Your task to perform on an android device: Go to Amazon Image 0: 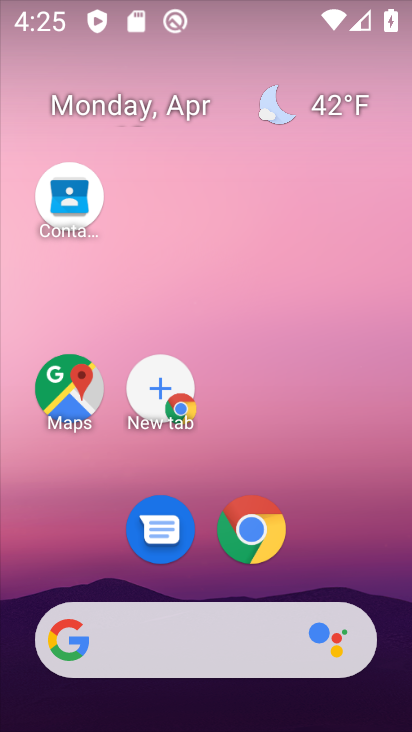
Step 0: click (261, 541)
Your task to perform on an android device: Go to Amazon Image 1: 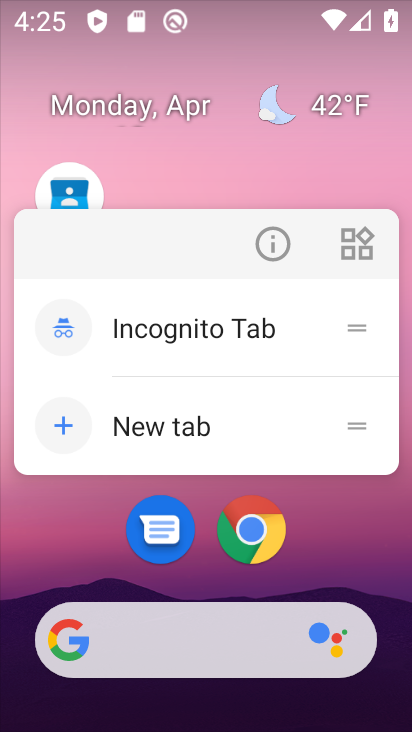
Step 1: click (251, 537)
Your task to perform on an android device: Go to Amazon Image 2: 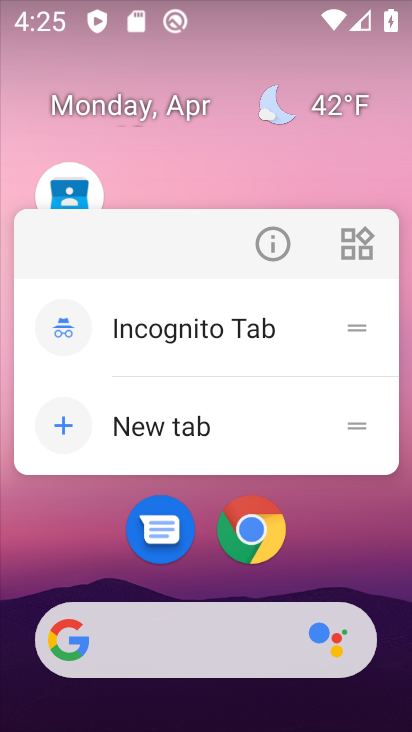
Step 2: click (257, 523)
Your task to perform on an android device: Go to Amazon Image 3: 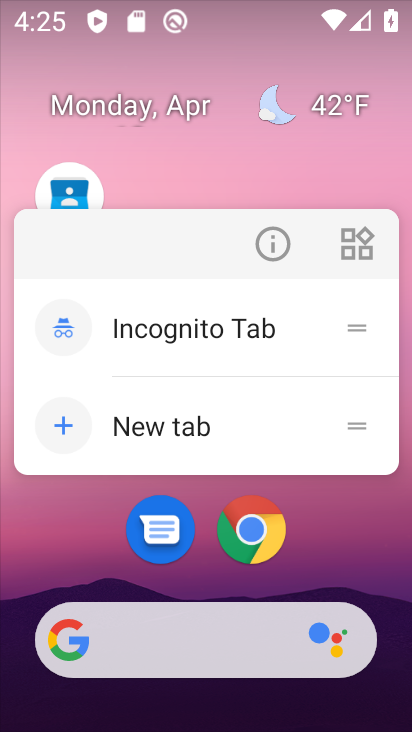
Step 3: click (253, 518)
Your task to perform on an android device: Go to Amazon Image 4: 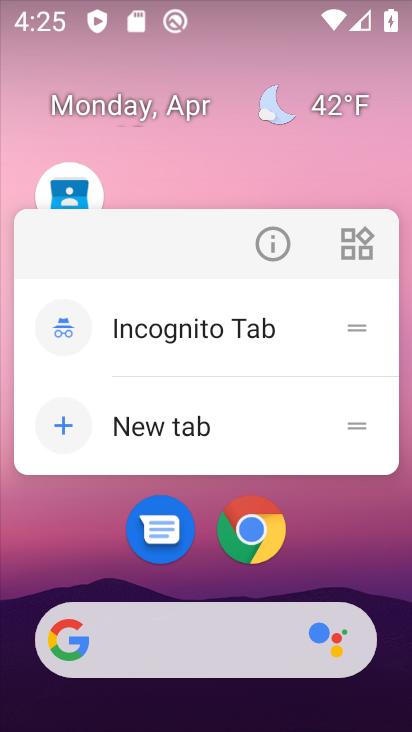
Step 4: drag from (224, 568) to (245, 535)
Your task to perform on an android device: Go to Amazon Image 5: 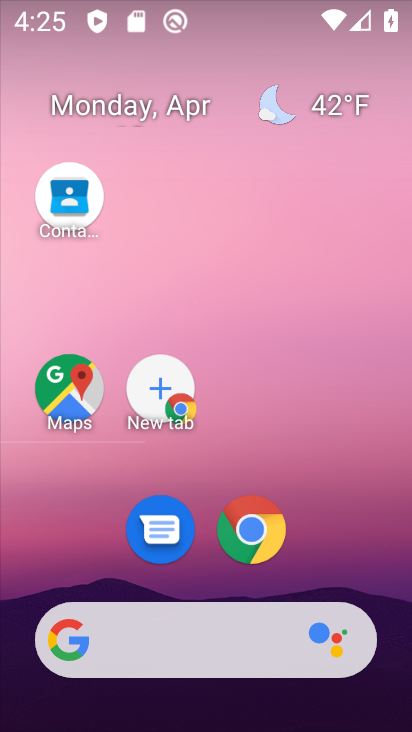
Step 5: click (245, 535)
Your task to perform on an android device: Go to Amazon Image 6: 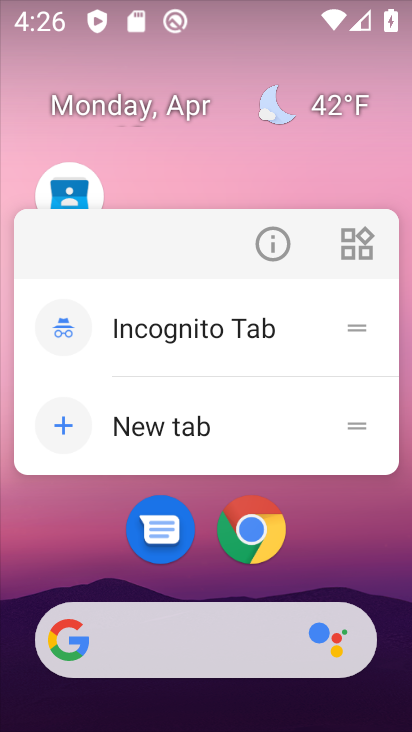
Step 6: click (250, 532)
Your task to perform on an android device: Go to Amazon Image 7: 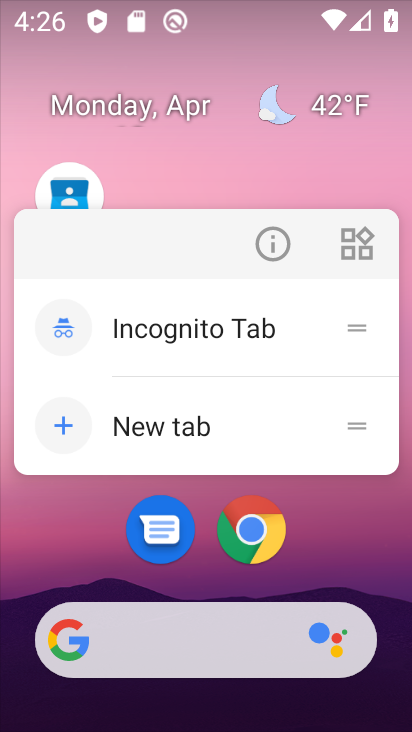
Step 7: click (179, 430)
Your task to perform on an android device: Go to Amazon Image 8: 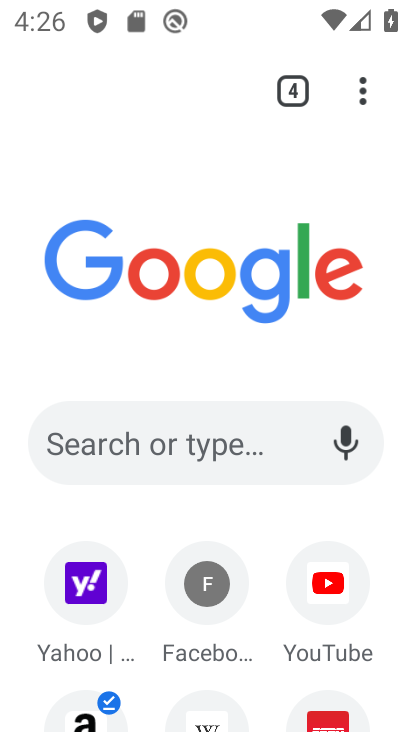
Step 8: click (85, 713)
Your task to perform on an android device: Go to Amazon Image 9: 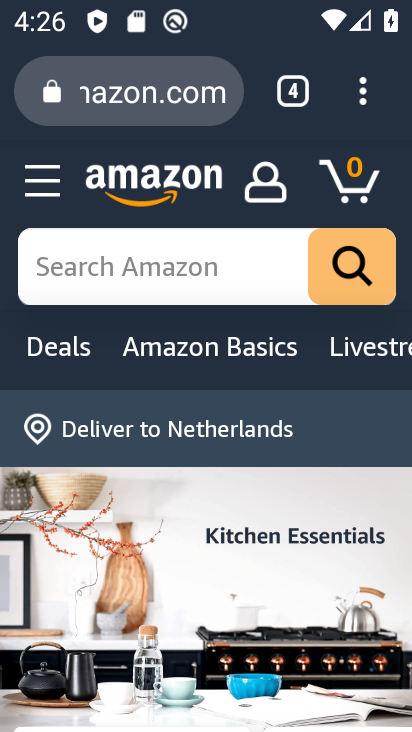
Step 9: task complete